Your task to perform on an android device: change the clock display to show seconds Image 0: 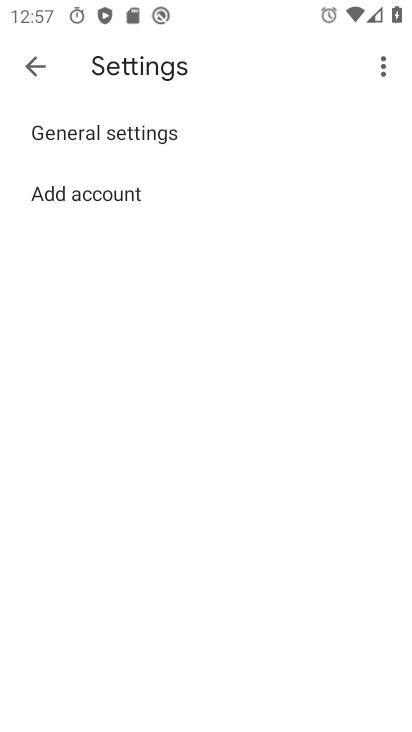
Step 0: press home button
Your task to perform on an android device: change the clock display to show seconds Image 1: 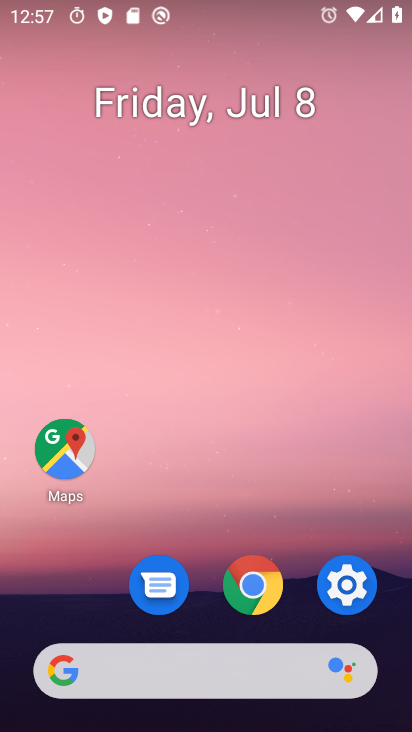
Step 1: drag from (241, 661) to (242, 148)
Your task to perform on an android device: change the clock display to show seconds Image 2: 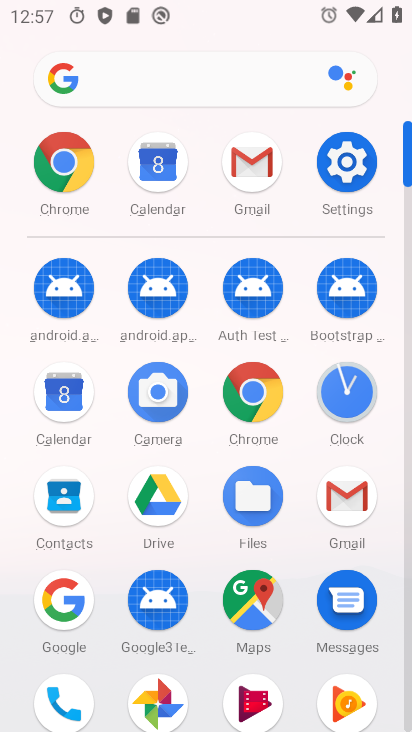
Step 2: click (354, 402)
Your task to perform on an android device: change the clock display to show seconds Image 3: 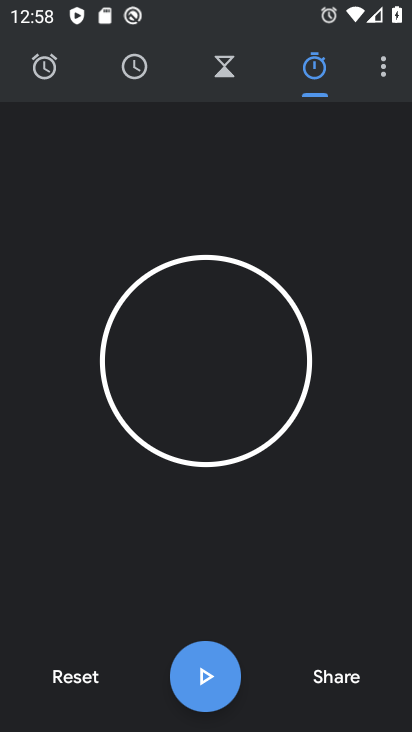
Step 3: click (381, 79)
Your task to perform on an android device: change the clock display to show seconds Image 4: 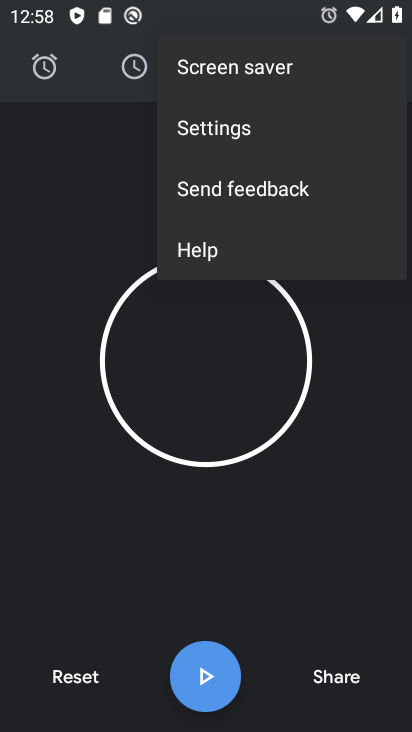
Step 4: click (238, 142)
Your task to perform on an android device: change the clock display to show seconds Image 5: 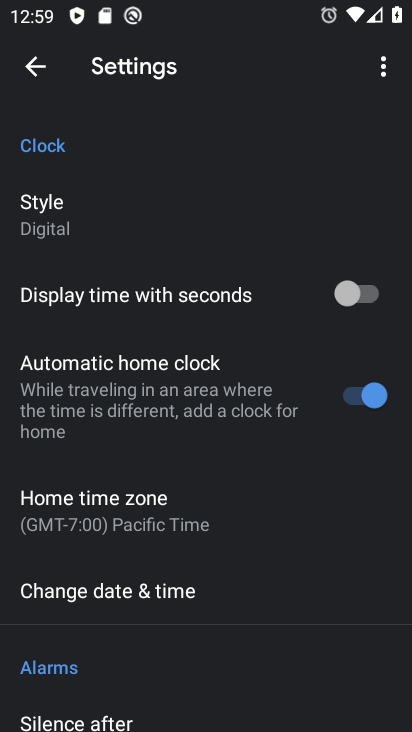
Step 5: click (335, 300)
Your task to perform on an android device: change the clock display to show seconds Image 6: 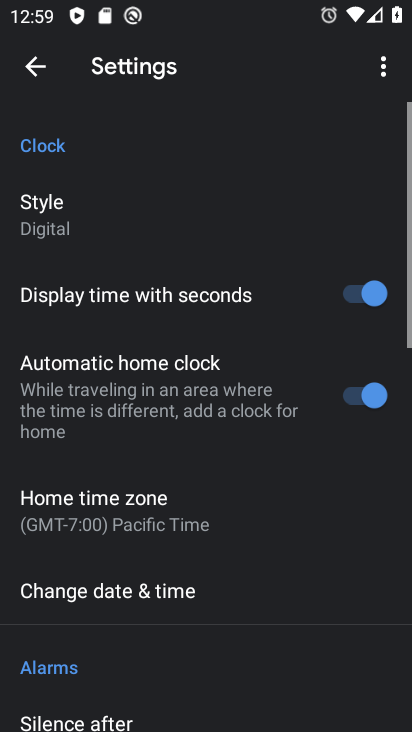
Step 6: task complete